Your task to perform on an android device: open app "Gboard" Image 0: 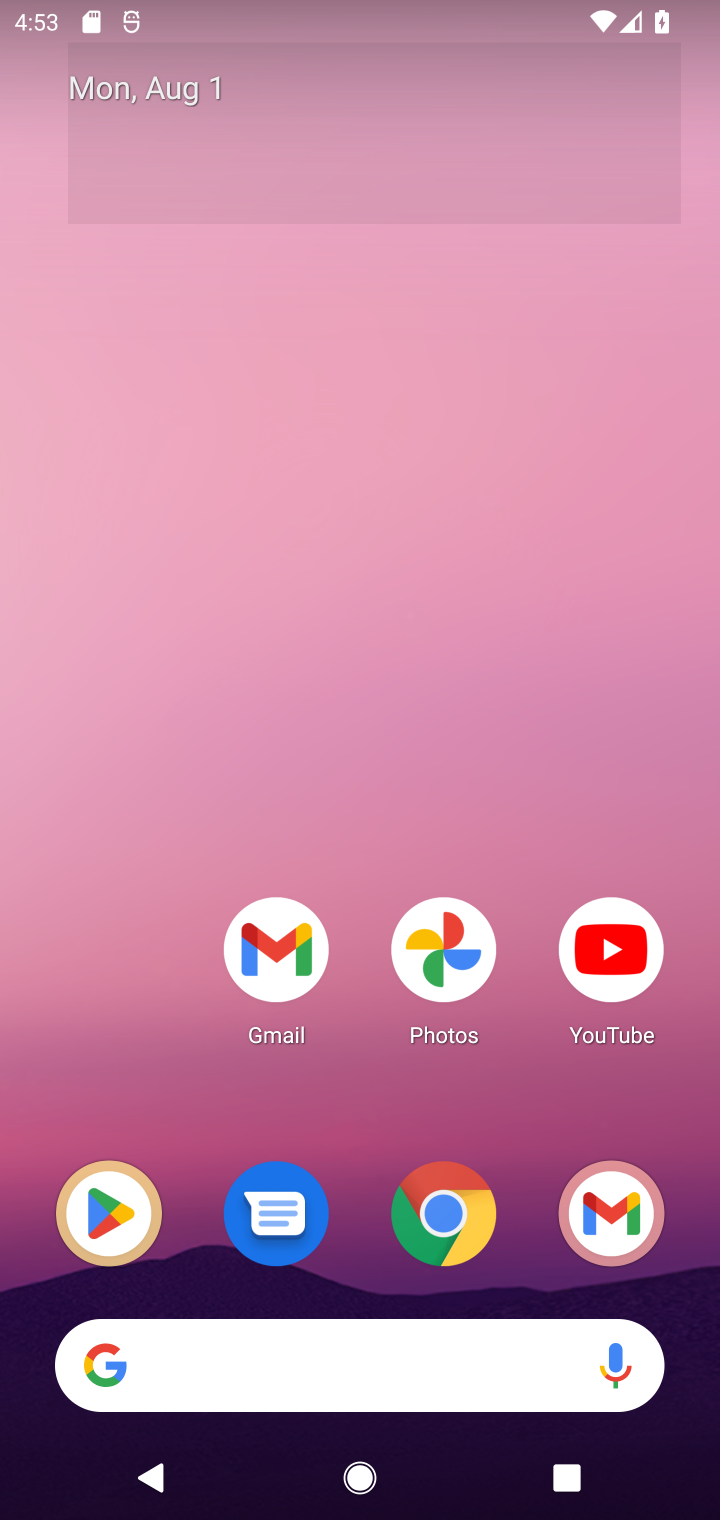
Step 0: drag from (369, 1100) to (223, 9)
Your task to perform on an android device: open app "Gboard" Image 1: 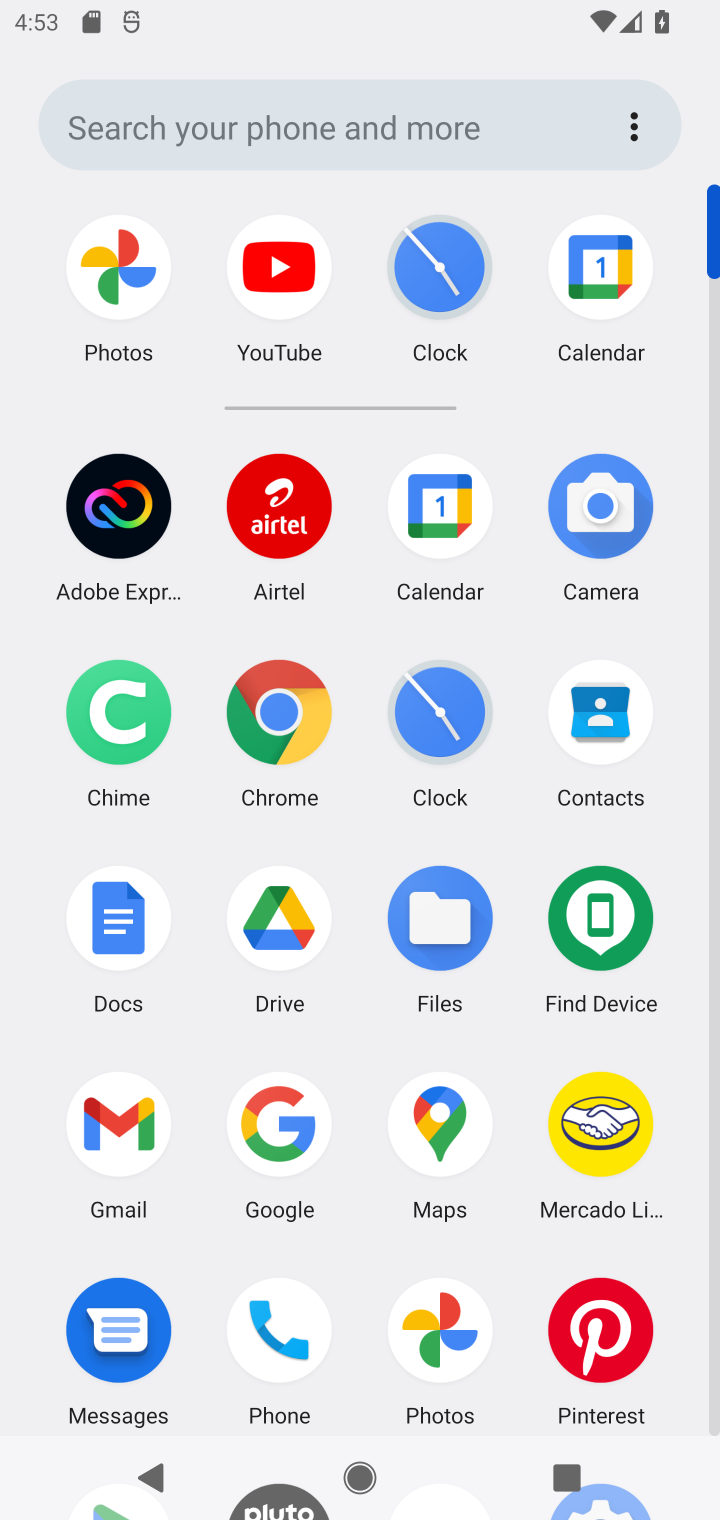
Step 1: drag from (352, 1206) to (361, 562)
Your task to perform on an android device: open app "Gboard" Image 2: 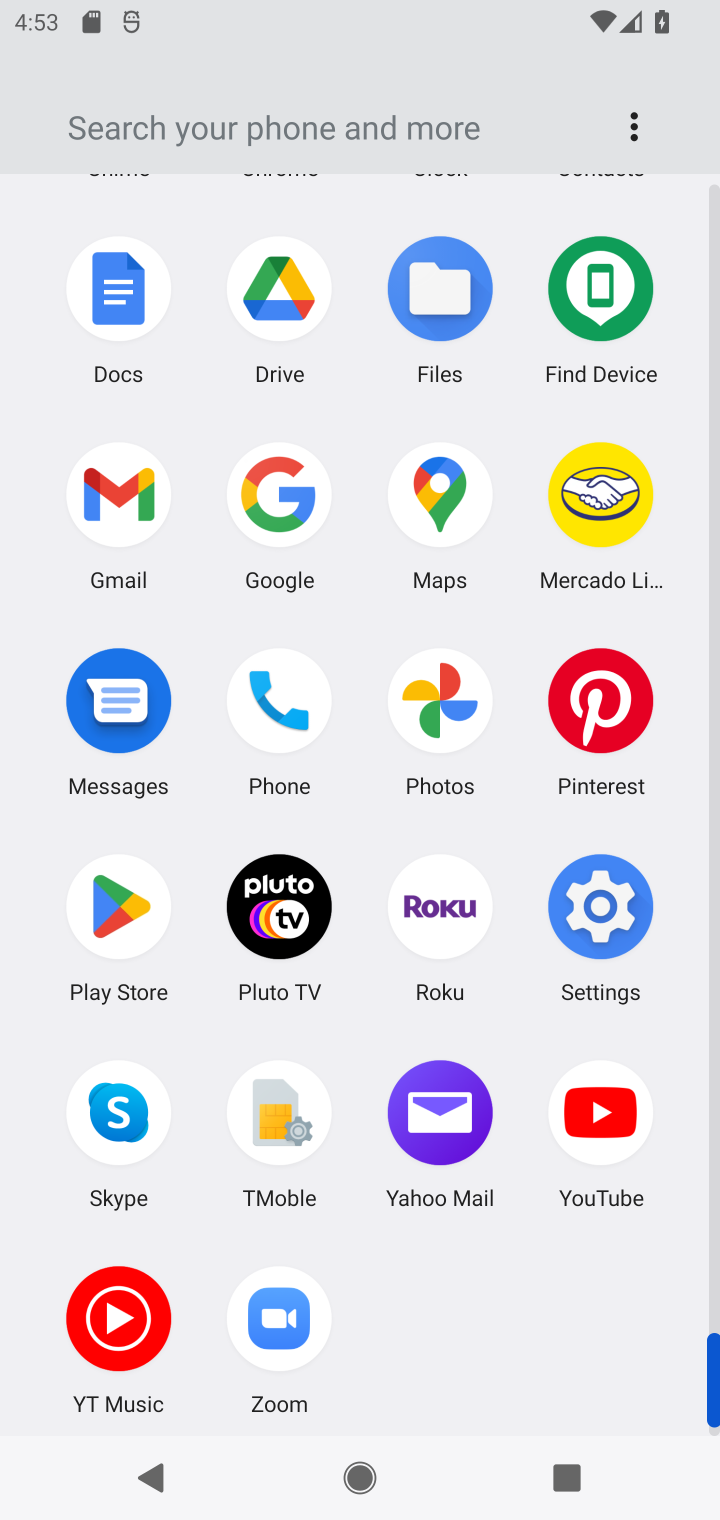
Step 2: click (114, 927)
Your task to perform on an android device: open app "Gboard" Image 3: 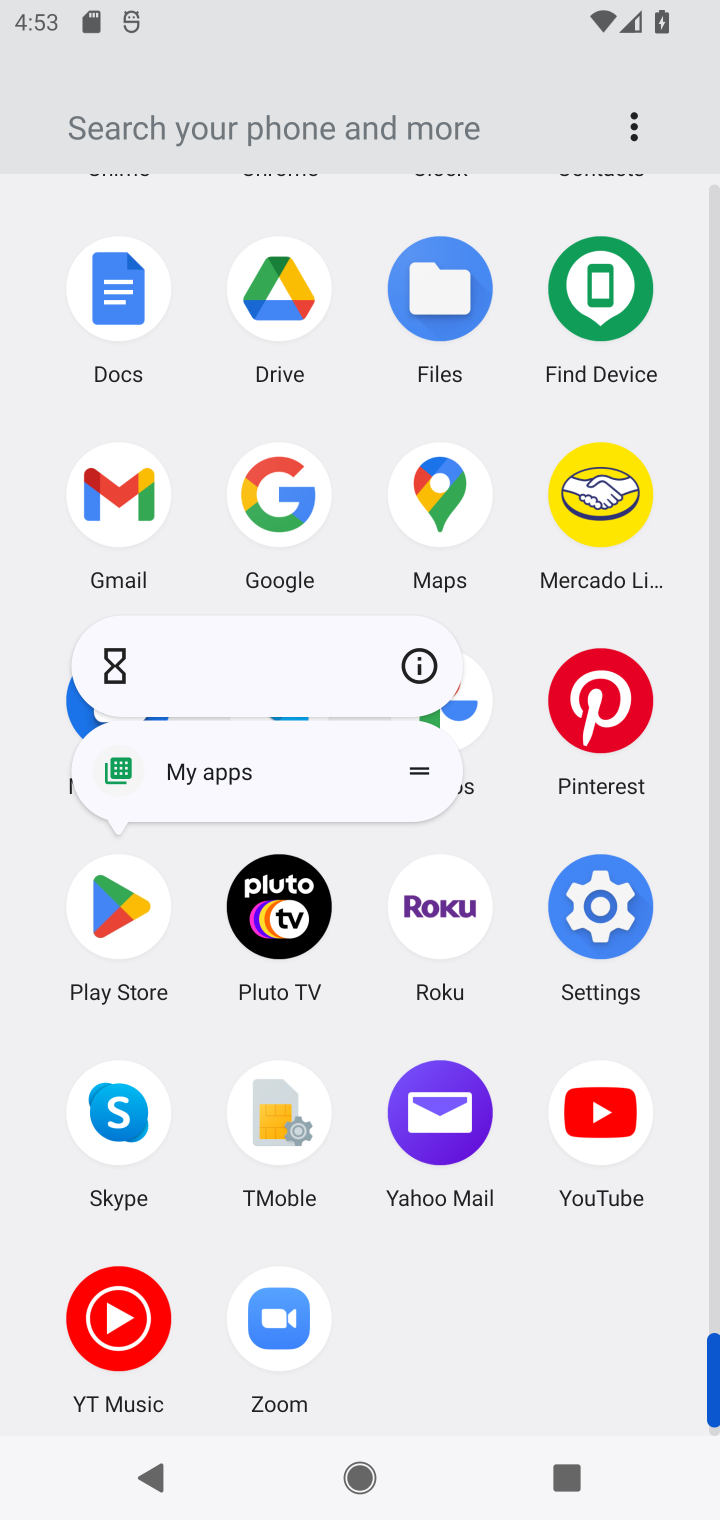
Step 3: click (115, 940)
Your task to perform on an android device: open app "Gboard" Image 4: 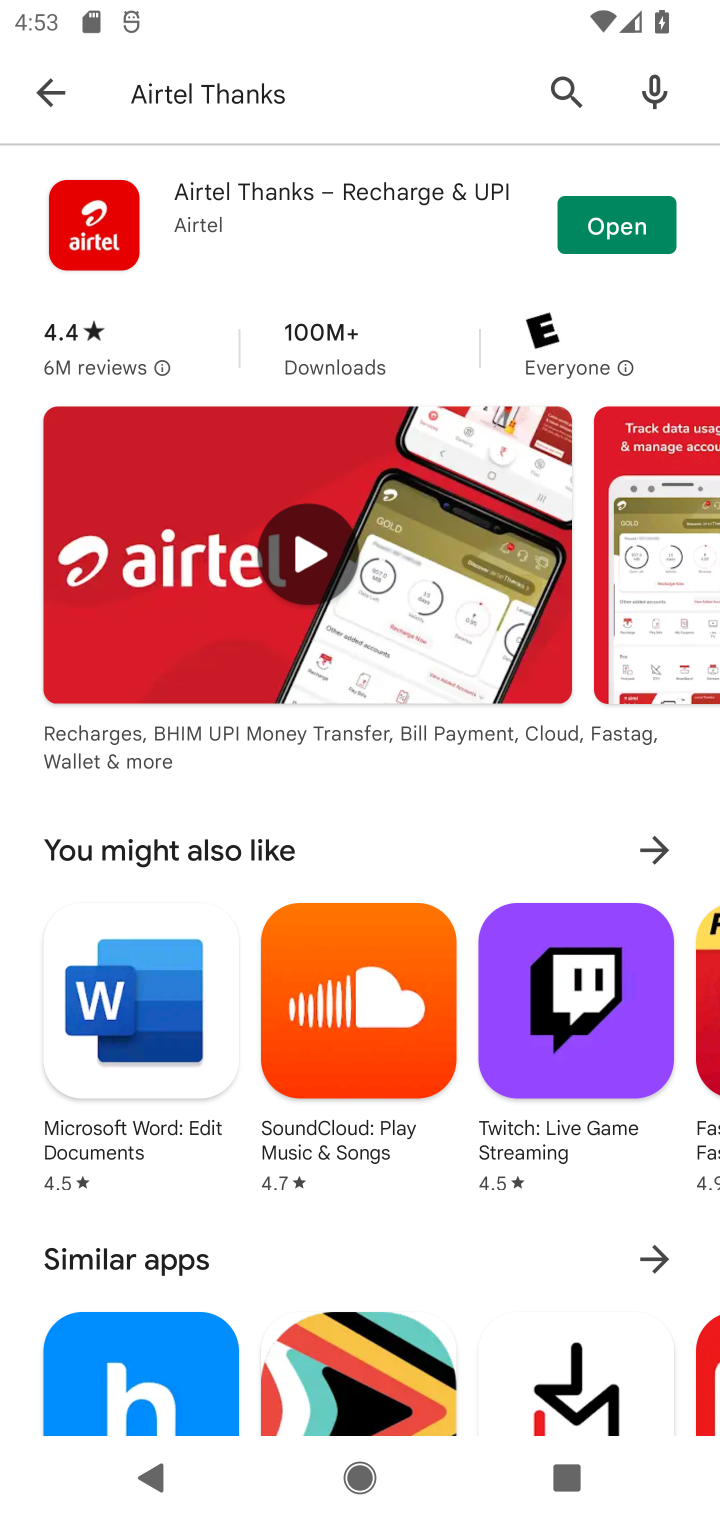
Step 4: click (373, 107)
Your task to perform on an android device: open app "Gboard" Image 5: 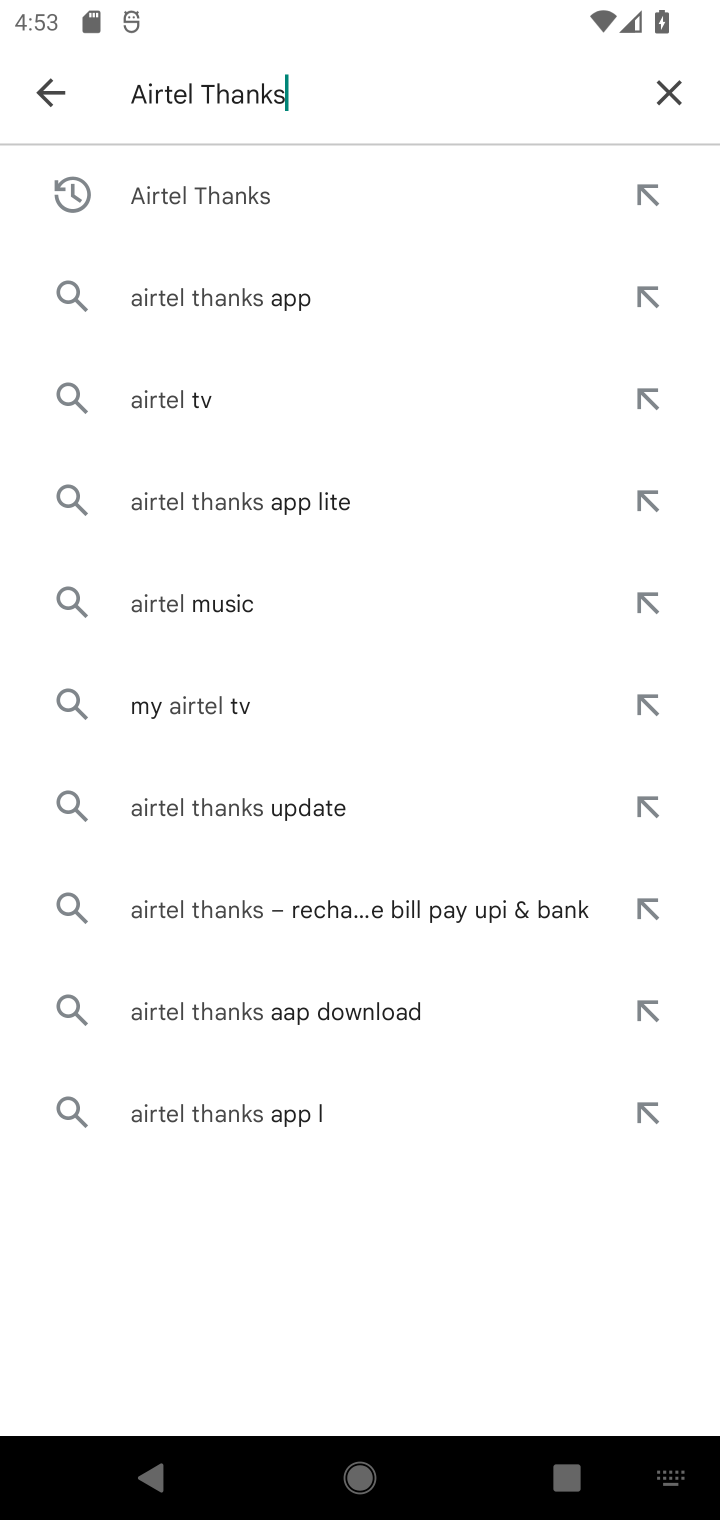
Step 5: click (658, 81)
Your task to perform on an android device: open app "Gboard" Image 6: 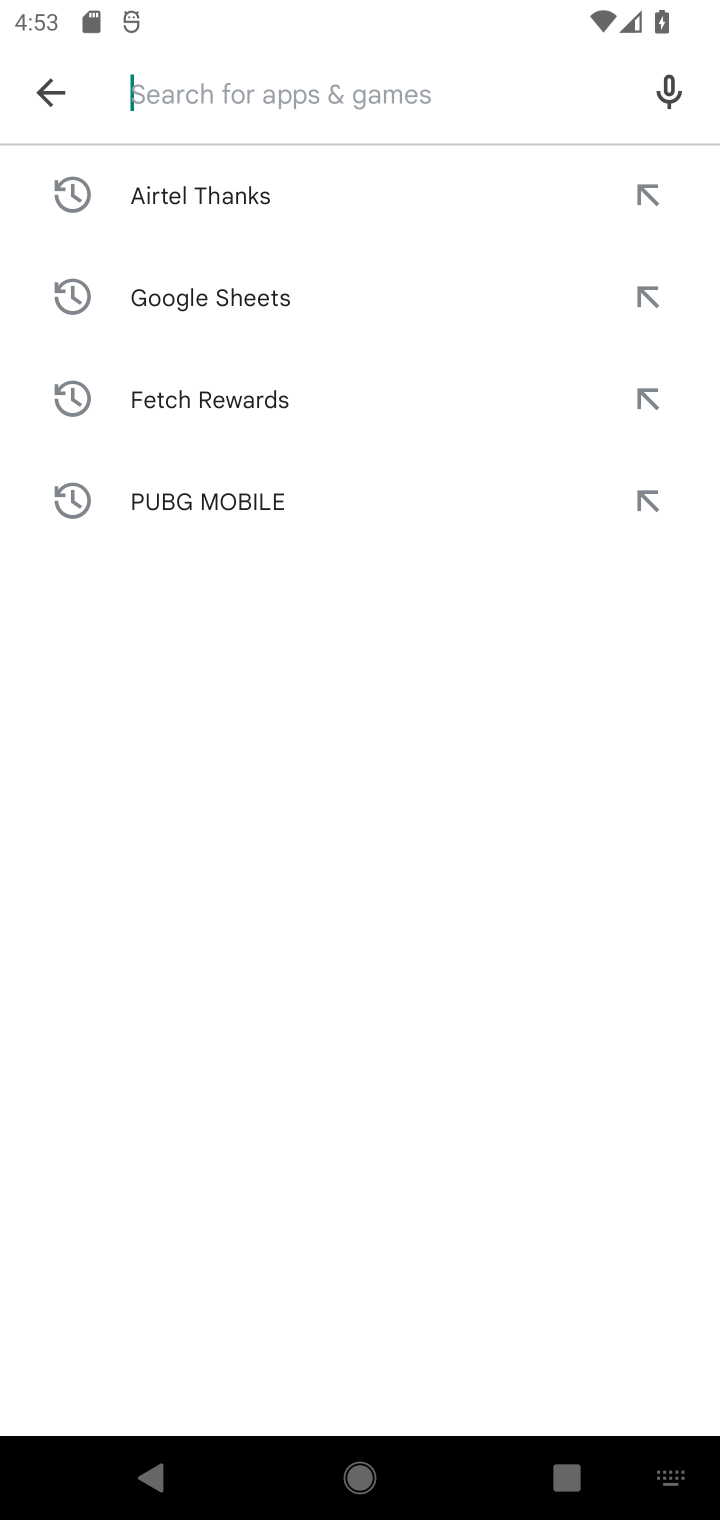
Step 6: type "Gboard"
Your task to perform on an android device: open app "Gboard" Image 7: 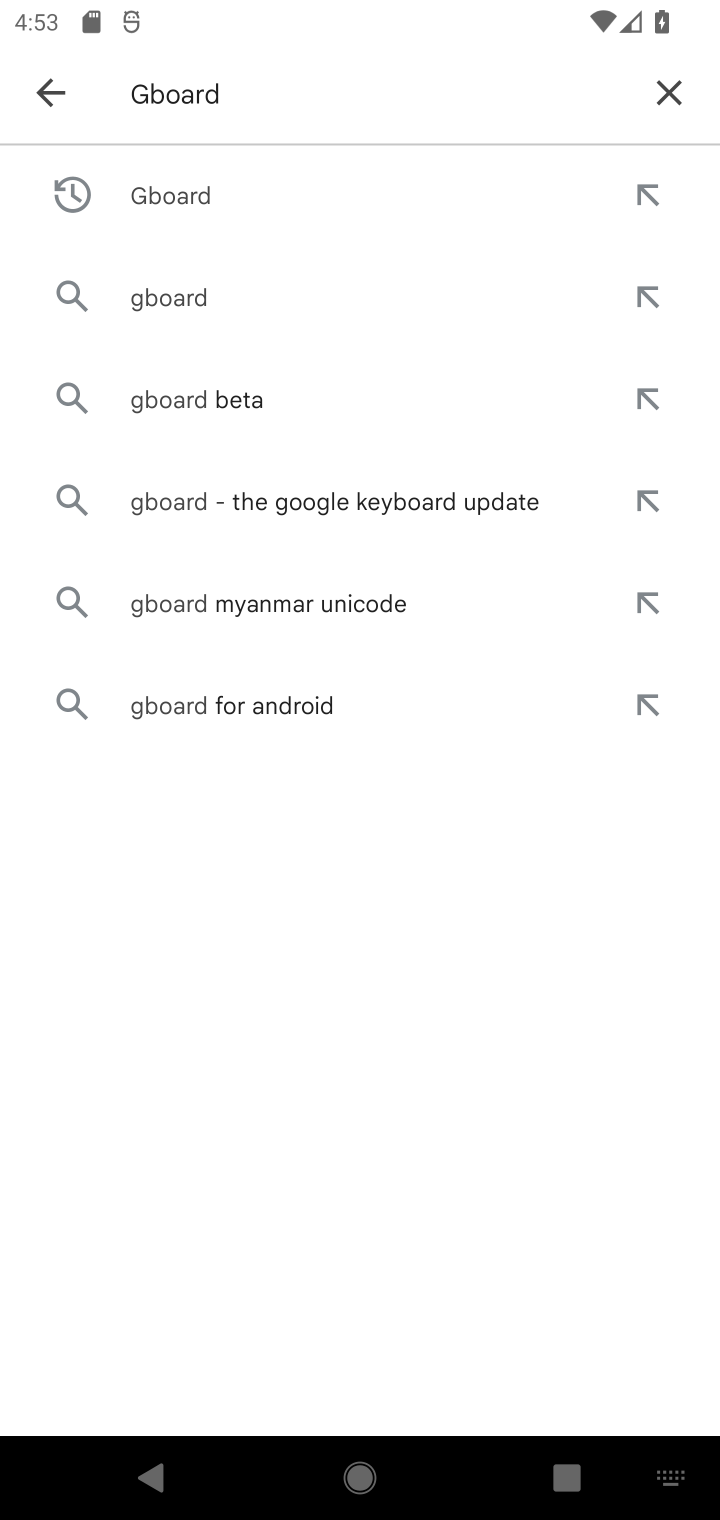
Step 7: press enter
Your task to perform on an android device: open app "Gboard" Image 8: 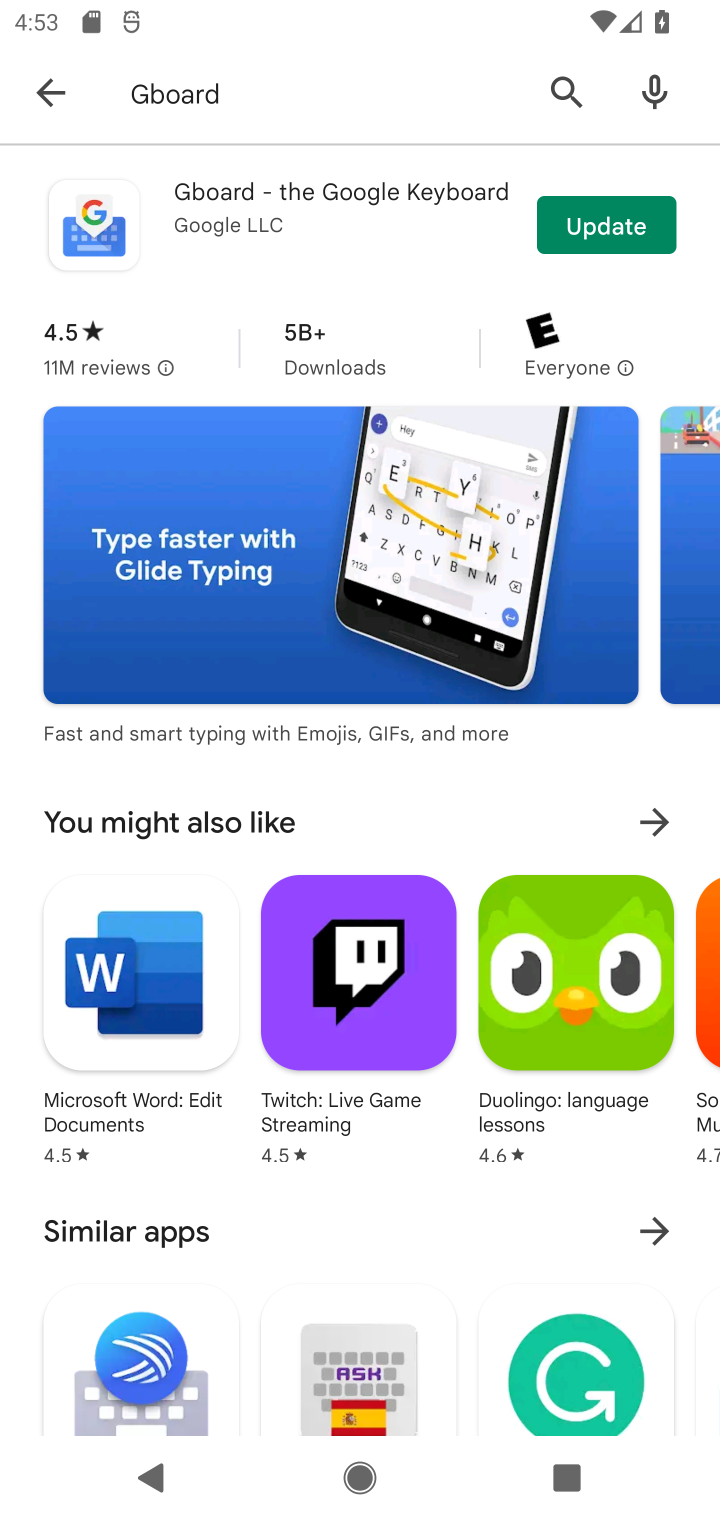
Step 8: click (218, 213)
Your task to perform on an android device: open app "Gboard" Image 9: 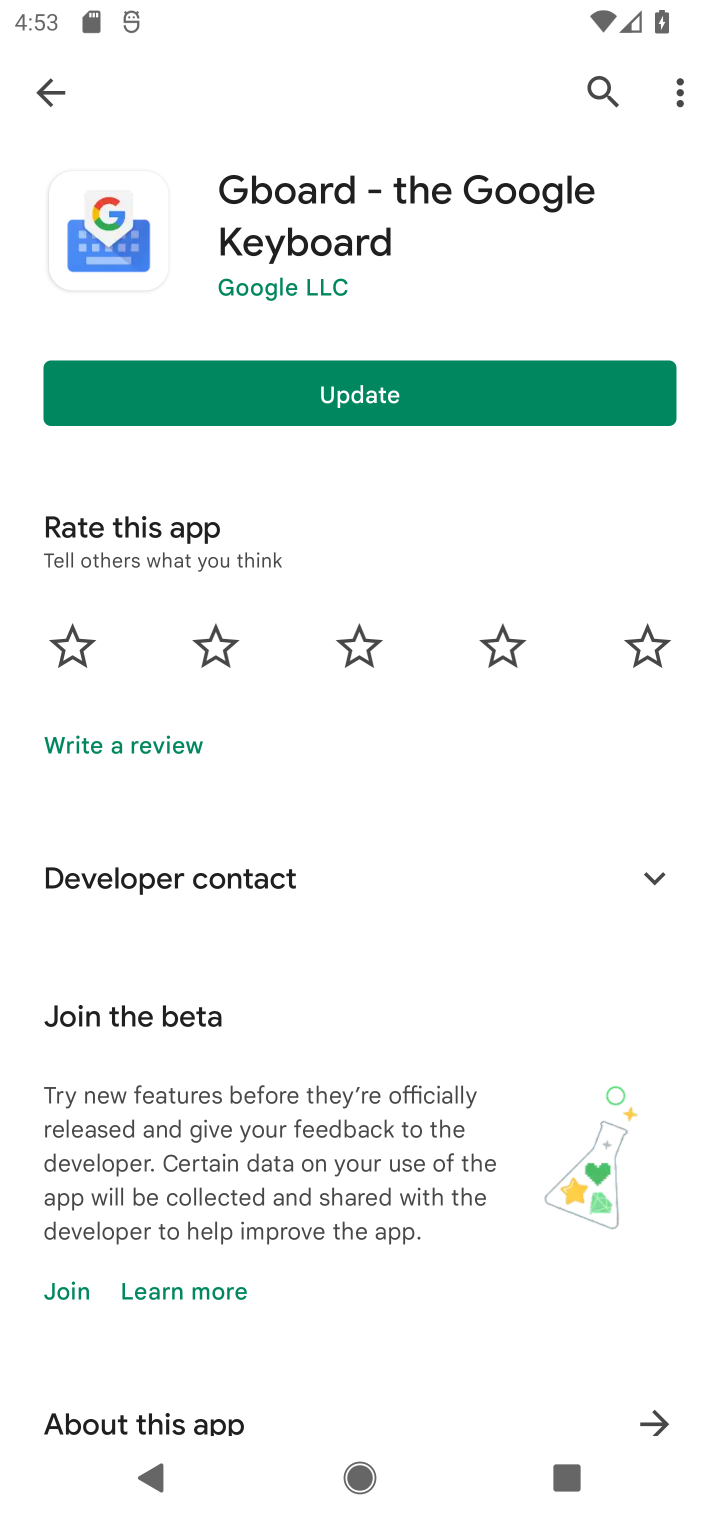
Step 9: click (529, 403)
Your task to perform on an android device: open app "Gboard" Image 10: 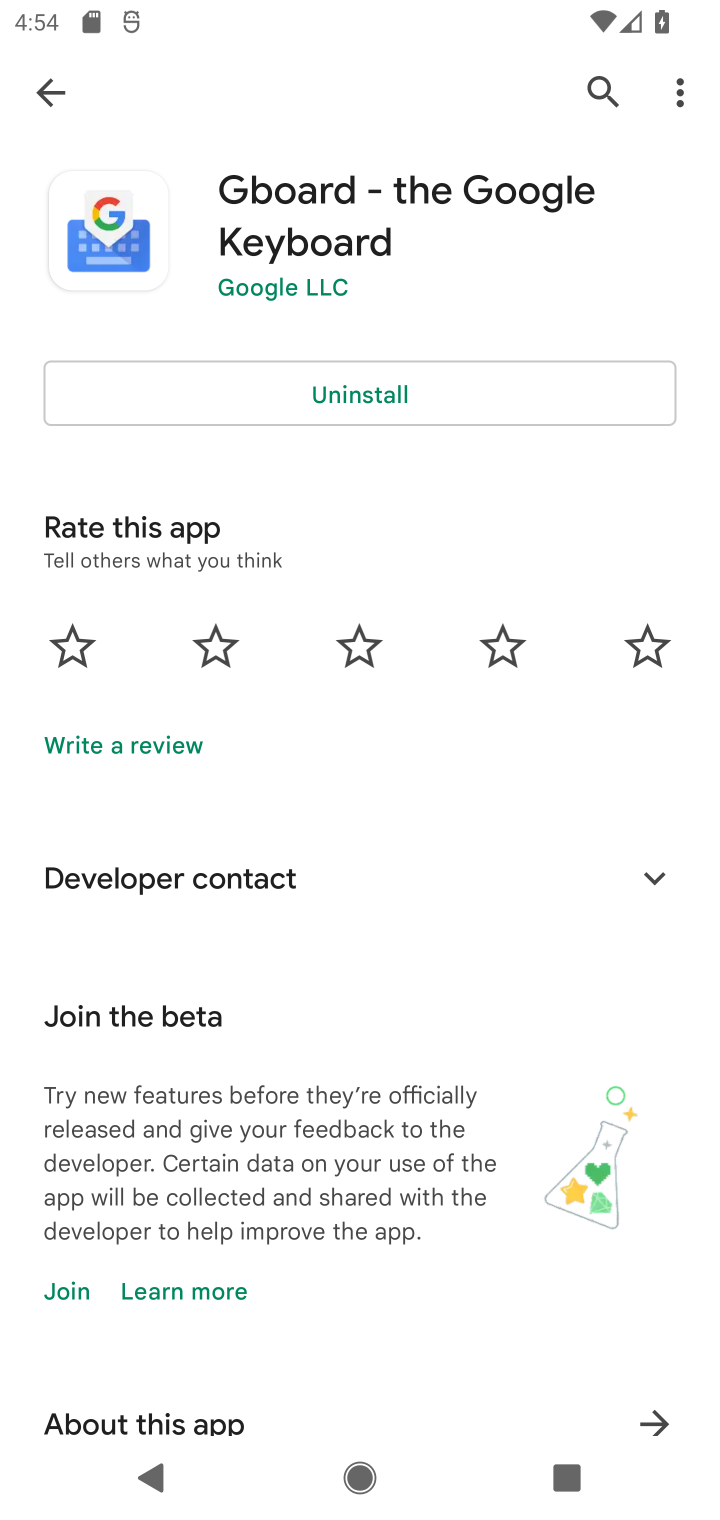
Step 10: task complete